Your task to perform on an android device: What's on my calendar today? Image 0: 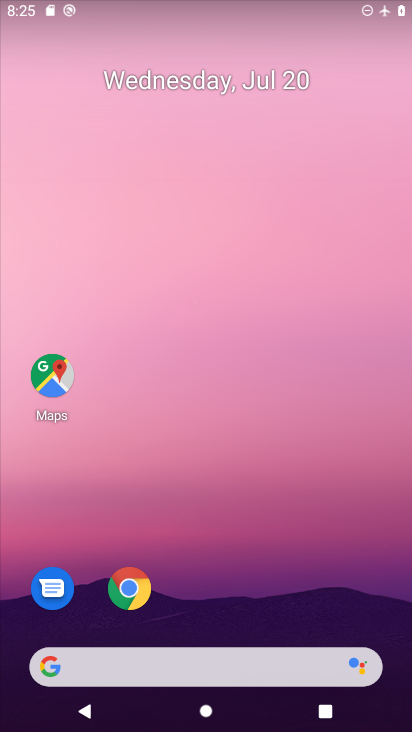
Step 0: drag from (63, 664) to (297, 187)
Your task to perform on an android device: What's on my calendar today? Image 1: 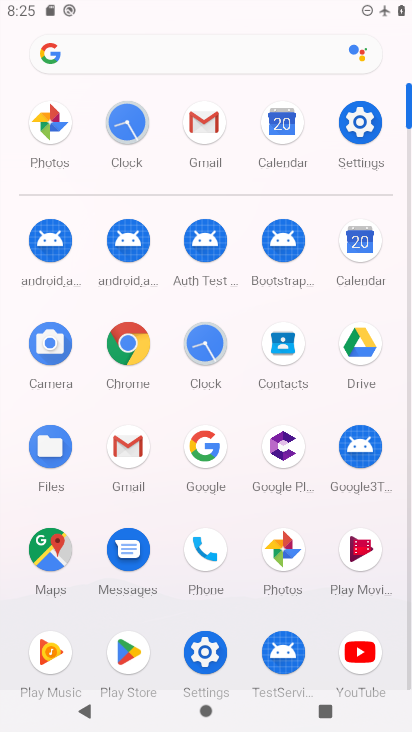
Step 1: click (361, 251)
Your task to perform on an android device: What's on my calendar today? Image 2: 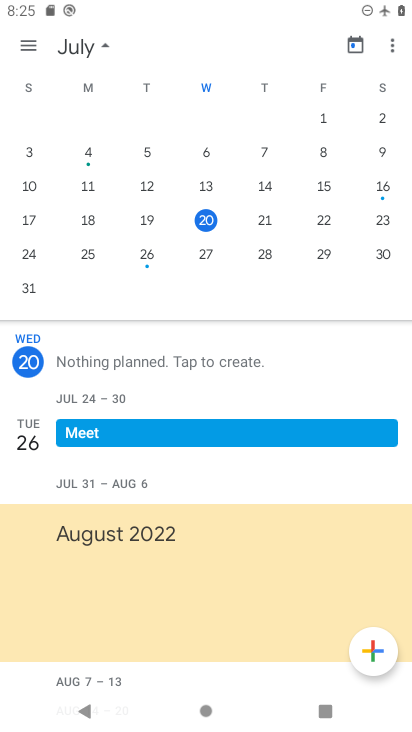
Step 2: task complete